Your task to perform on an android device: What's on my calendar today? Image 0: 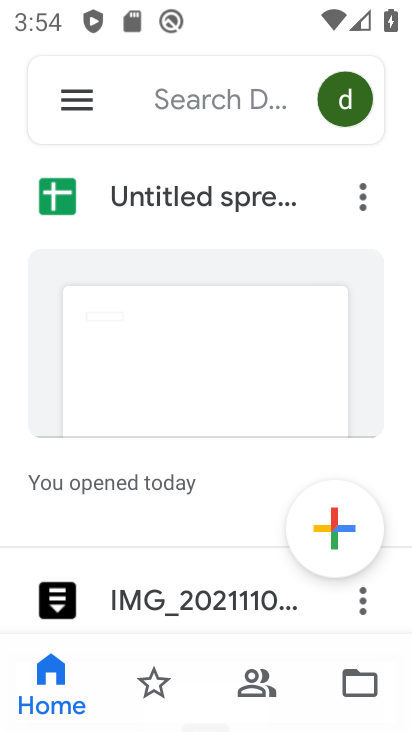
Step 0: press home button
Your task to perform on an android device: What's on my calendar today? Image 1: 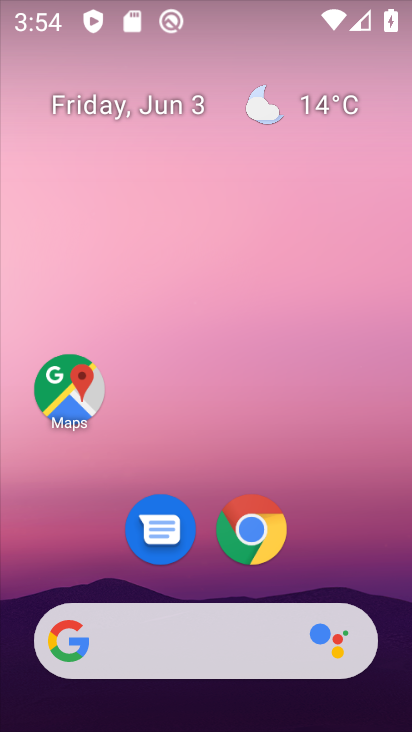
Step 1: drag from (198, 577) to (215, 55)
Your task to perform on an android device: What's on my calendar today? Image 2: 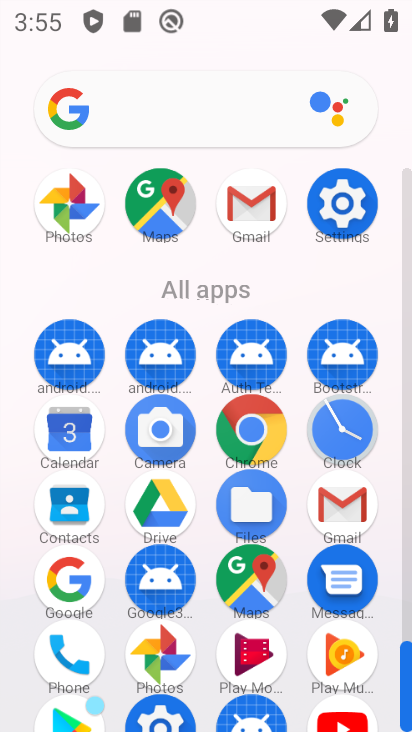
Step 2: click (65, 423)
Your task to perform on an android device: What's on my calendar today? Image 3: 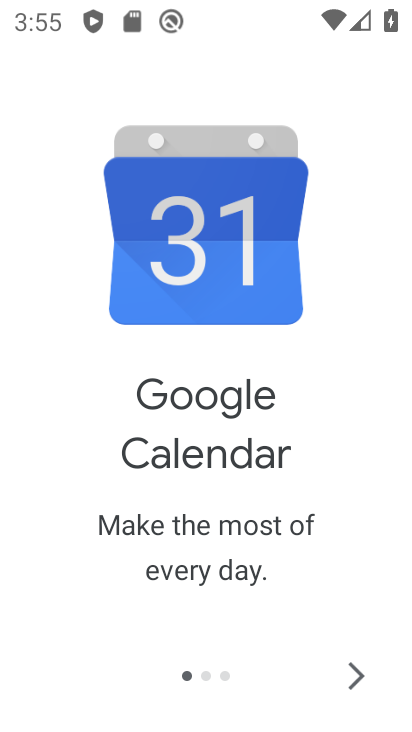
Step 3: click (347, 666)
Your task to perform on an android device: What's on my calendar today? Image 4: 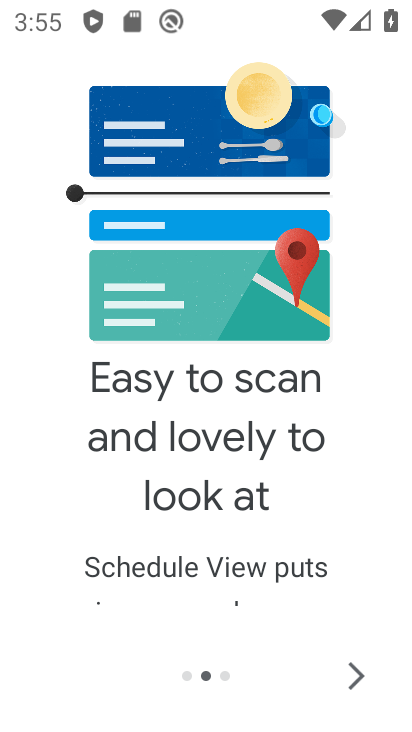
Step 4: click (355, 671)
Your task to perform on an android device: What's on my calendar today? Image 5: 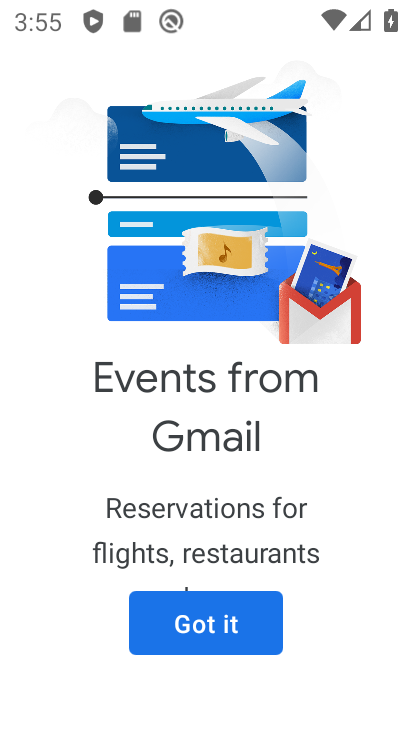
Step 5: click (217, 624)
Your task to perform on an android device: What's on my calendar today? Image 6: 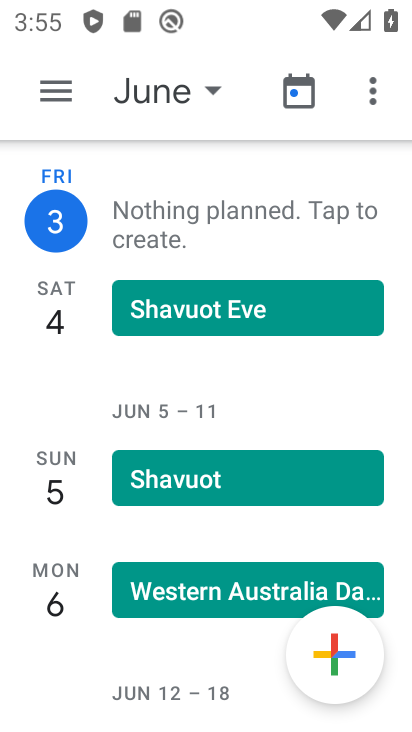
Step 6: click (57, 212)
Your task to perform on an android device: What's on my calendar today? Image 7: 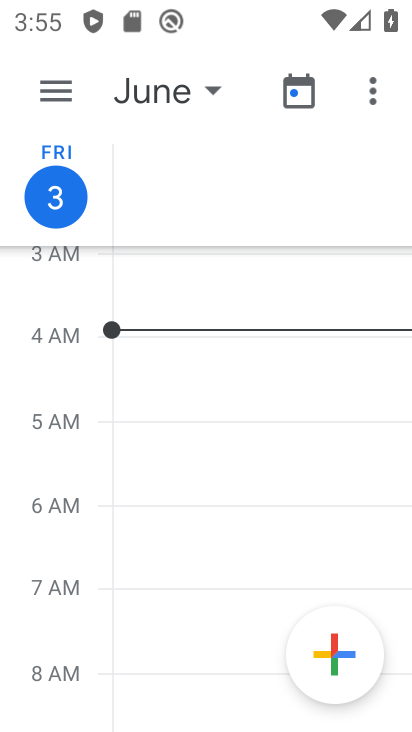
Step 7: task complete